Your task to perform on an android device: toggle sleep mode Image 0: 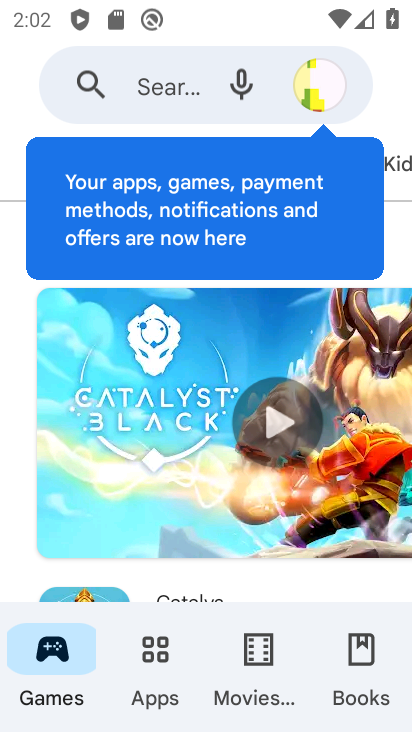
Step 0: press home button
Your task to perform on an android device: toggle sleep mode Image 1: 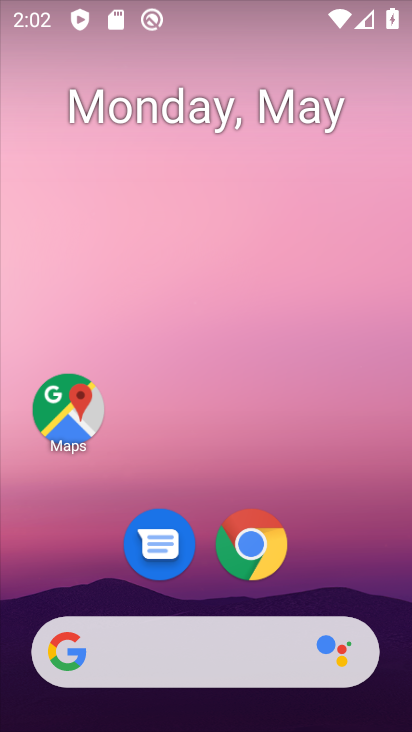
Step 1: drag from (210, 593) to (218, 159)
Your task to perform on an android device: toggle sleep mode Image 2: 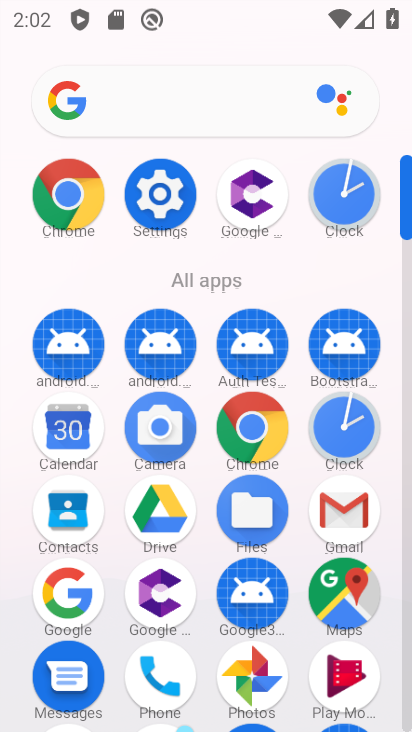
Step 2: click (168, 184)
Your task to perform on an android device: toggle sleep mode Image 3: 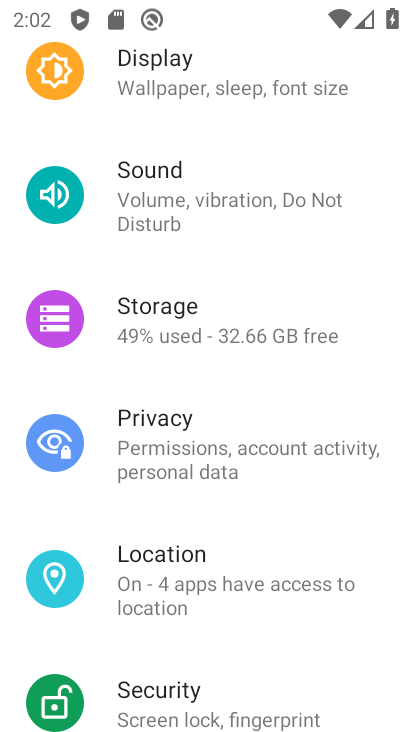
Step 3: drag from (168, 185) to (190, 437)
Your task to perform on an android device: toggle sleep mode Image 4: 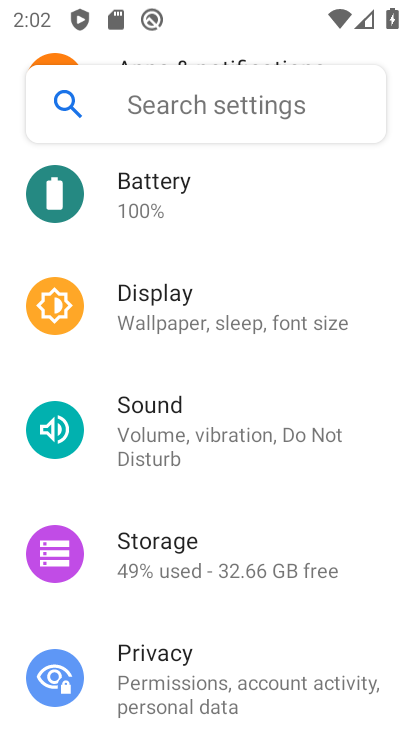
Step 4: drag from (201, 260) to (210, 392)
Your task to perform on an android device: toggle sleep mode Image 5: 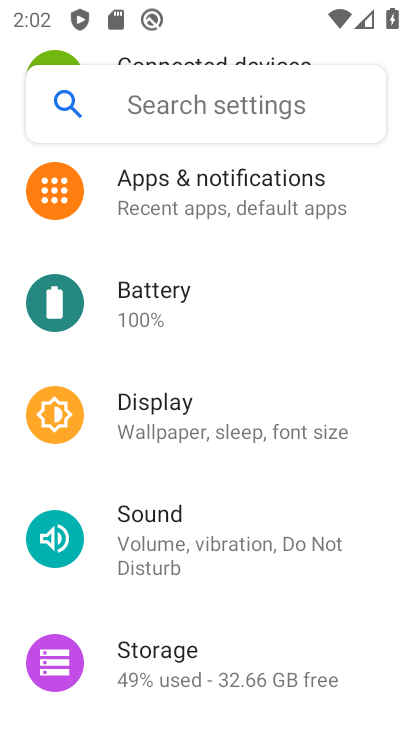
Step 5: drag from (188, 278) to (218, 373)
Your task to perform on an android device: toggle sleep mode Image 6: 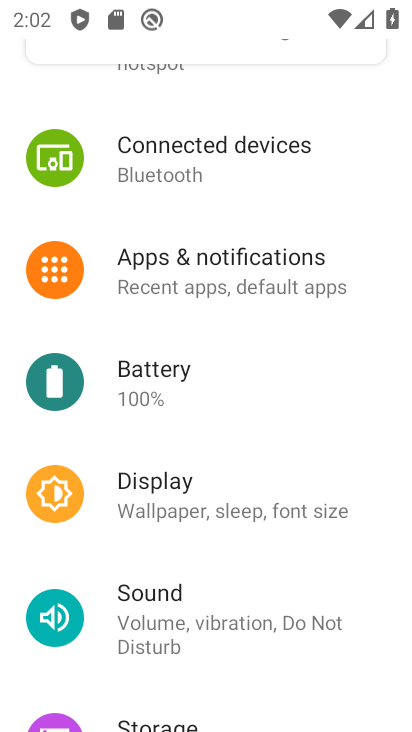
Step 6: click (181, 480)
Your task to perform on an android device: toggle sleep mode Image 7: 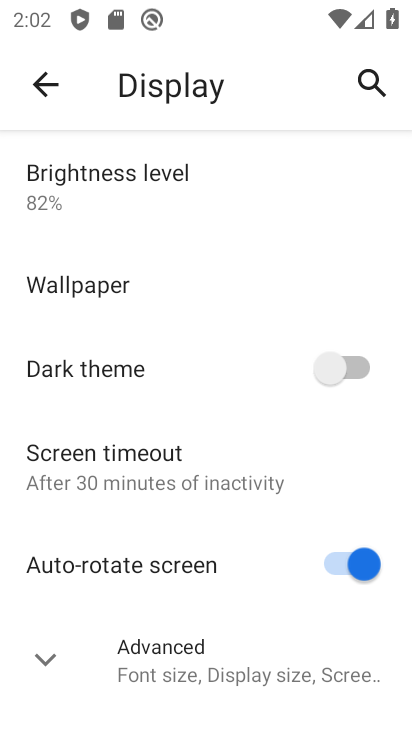
Step 7: click (146, 447)
Your task to perform on an android device: toggle sleep mode Image 8: 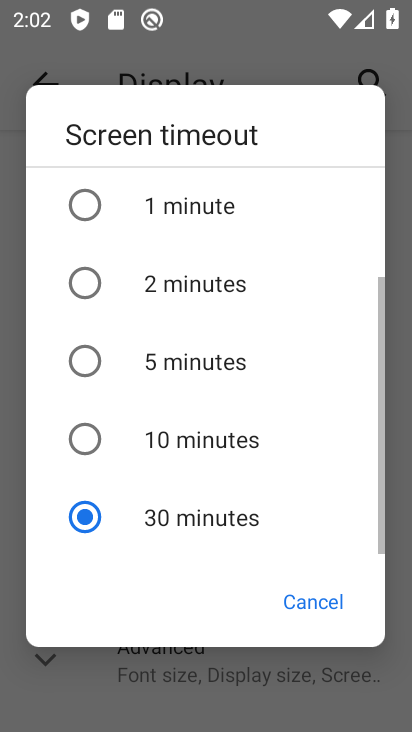
Step 8: click (158, 350)
Your task to perform on an android device: toggle sleep mode Image 9: 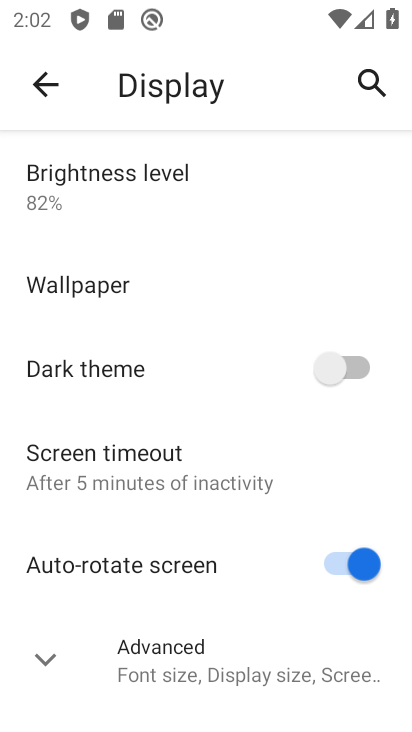
Step 9: task complete